Your task to perform on an android device: move an email to a new category in the gmail app Image 0: 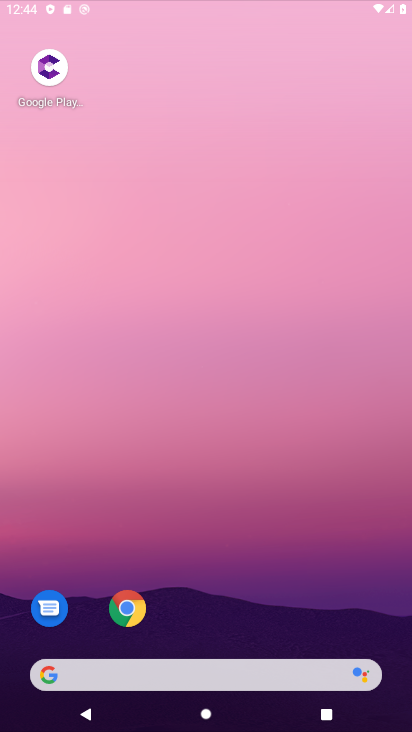
Step 0: drag from (211, 539) to (285, 232)
Your task to perform on an android device: move an email to a new category in the gmail app Image 1: 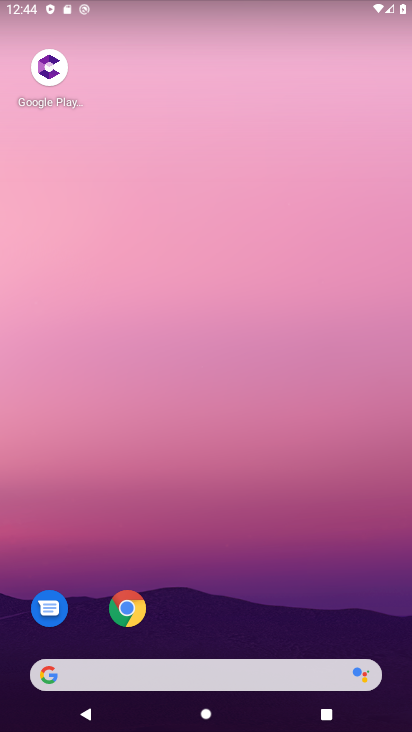
Step 1: drag from (198, 639) to (317, 207)
Your task to perform on an android device: move an email to a new category in the gmail app Image 2: 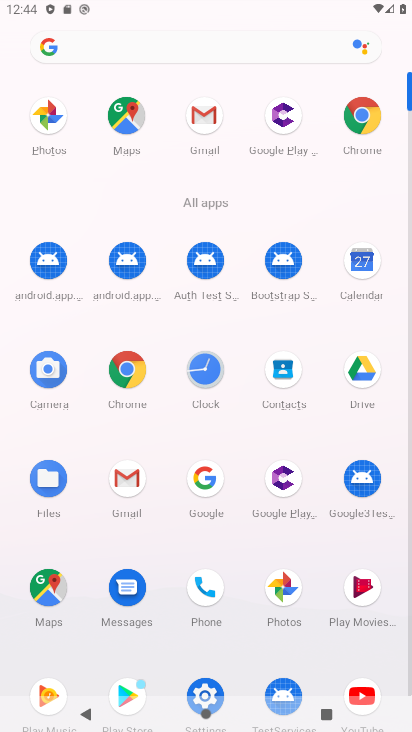
Step 2: drag from (206, 628) to (257, 518)
Your task to perform on an android device: move an email to a new category in the gmail app Image 3: 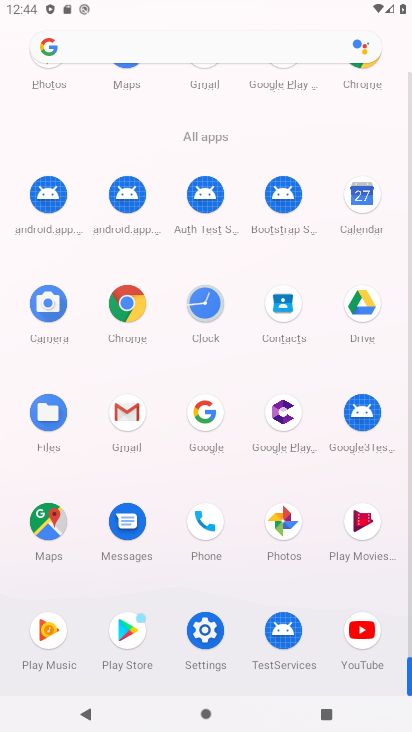
Step 3: click (140, 413)
Your task to perform on an android device: move an email to a new category in the gmail app Image 4: 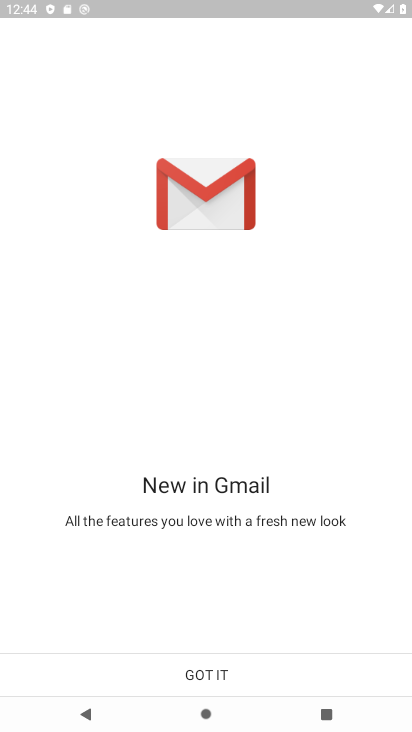
Step 4: click (272, 667)
Your task to perform on an android device: move an email to a new category in the gmail app Image 5: 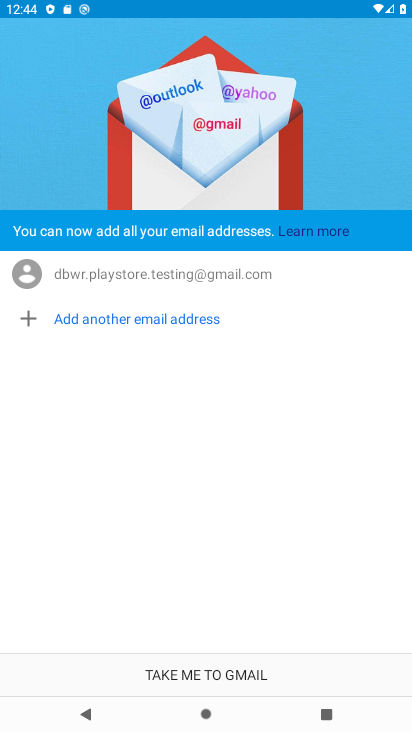
Step 5: click (268, 670)
Your task to perform on an android device: move an email to a new category in the gmail app Image 6: 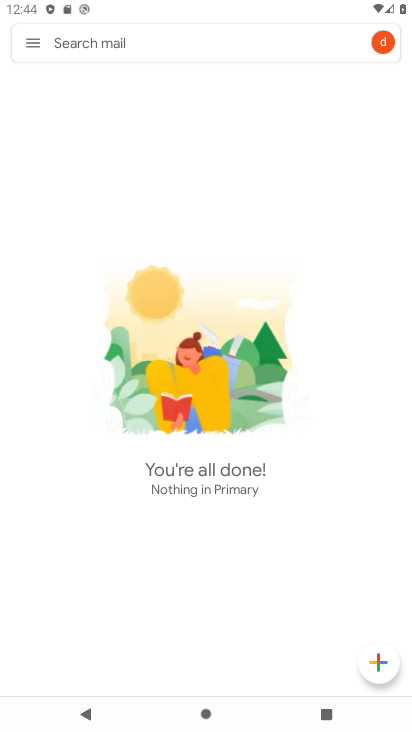
Step 6: click (39, 40)
Your task to perform on an android device: move an email to a new category in the gmail app Image 7: 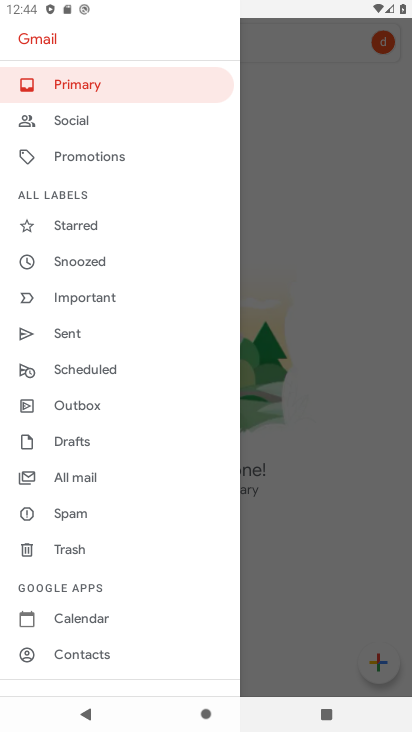
Step 7: click (96, 487)
Your task to perform on an android device: move an email to a new category in the gmail app Image 8: 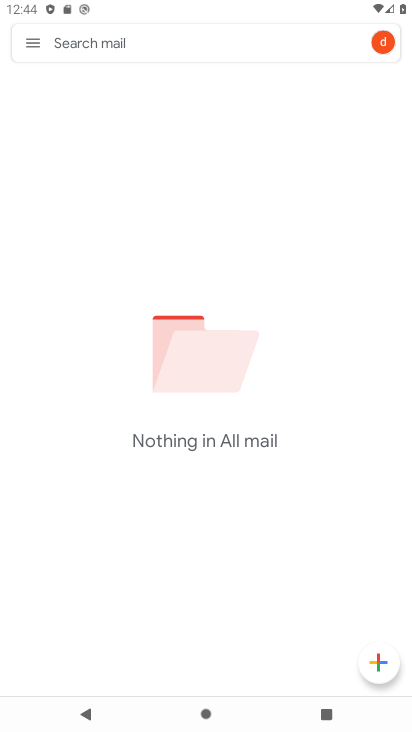
Step 8: task complete